Your task to perform on an android device: turn off data saver in the chrome app Image 0: 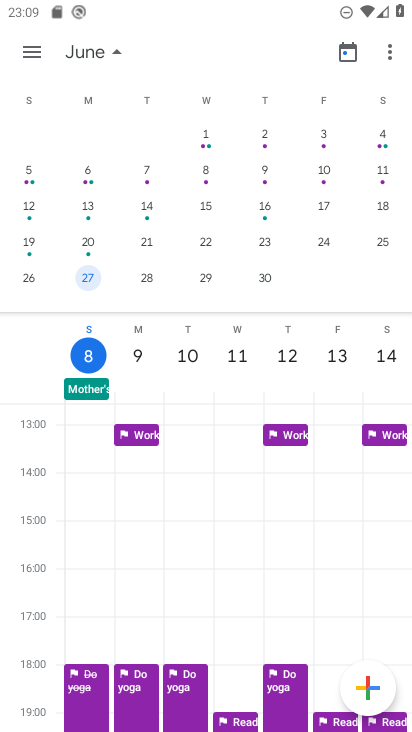
Step 0: press home button
Your task to perform on an android device: turn off data saver in the chrome app Image 1: 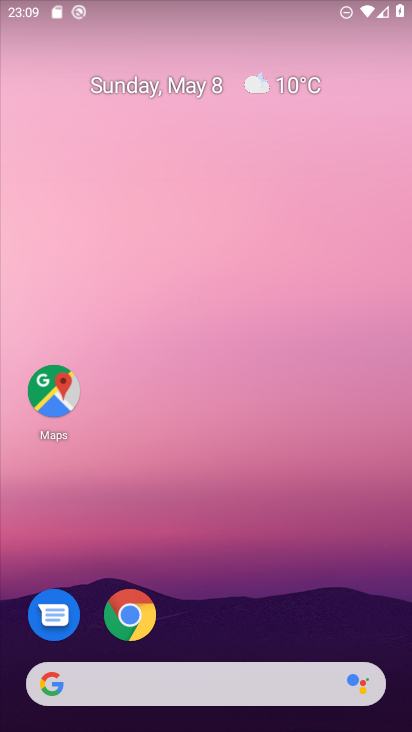
Step 1: drag from (316, 616) to (286, 80)
Your task to perform on an android device: turn off data saver in the chrome app Image 2: 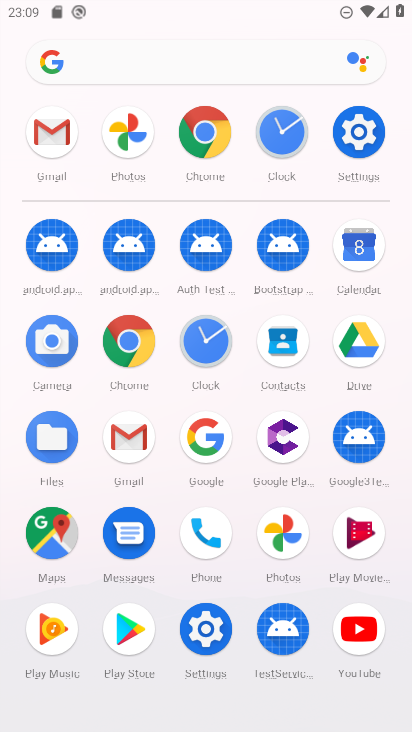
Step 2: click (129, 335)
Your task to perform on an android device: turn off data saver in the chrome app Image 3: 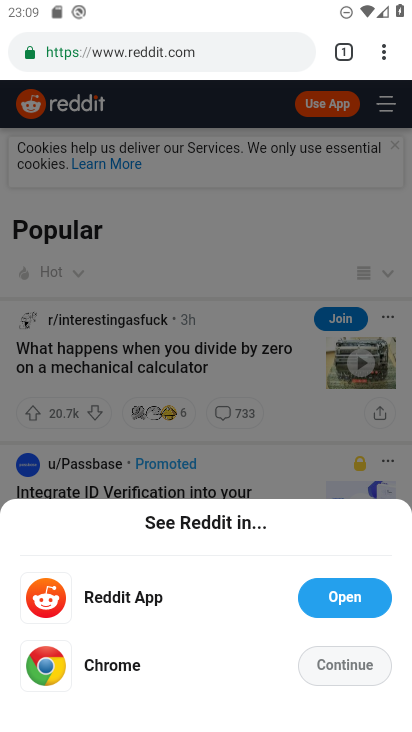
Step 3: click (385, 54)
Your task to perform on an android device: turn off data saver in the chrome app Image 4: 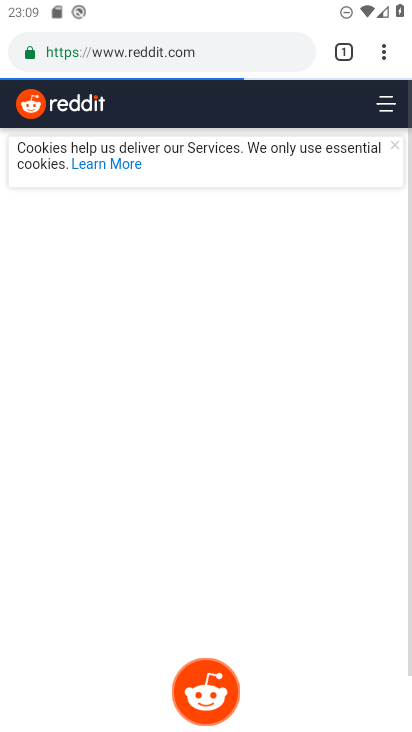
Step 4: drag from (381, 54) to (207, 615)
Your task to perform on an android device: turn off data saver in the chrome app Image 5: 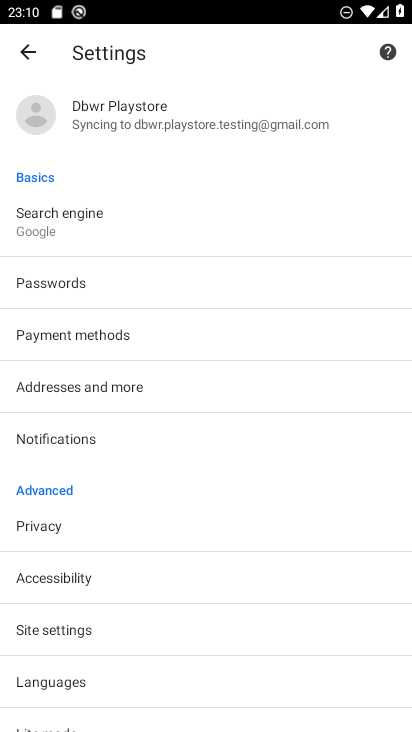
Step 5: drag from (119, 663) to (204, 262)
Your task to perform on an android device: turn off data saver in the chrome app Image 6: 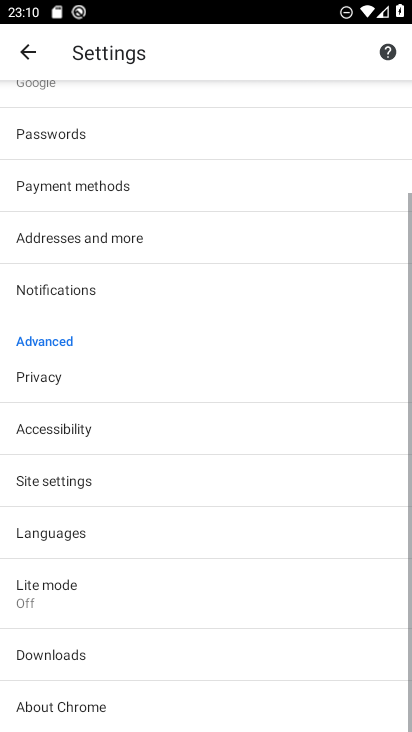
Step 6: click (62, 585)
Your task to perform on an android device: turn off data saver in the chrome app Image 7: 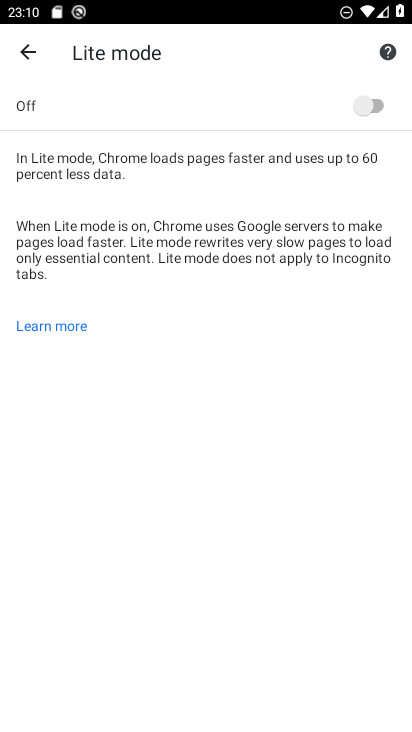
Step 7: task complete